Your task to perform on an android device: Go to Reddit.com Image 0: 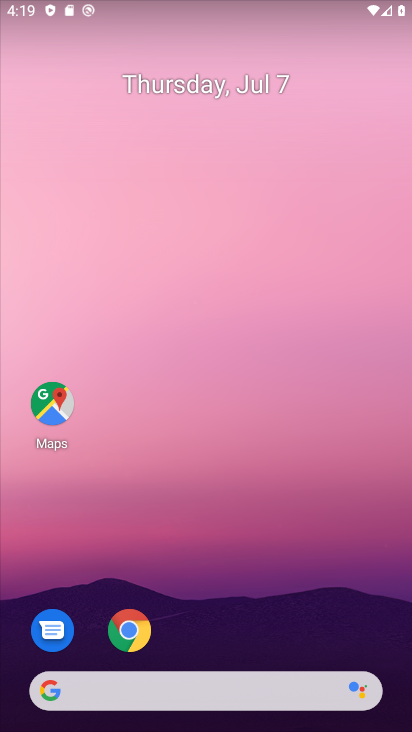
Step 0: drag from (300, 582) to (364, 91)
Your task to perform on an android device: Go to Reddit.com Image 1: 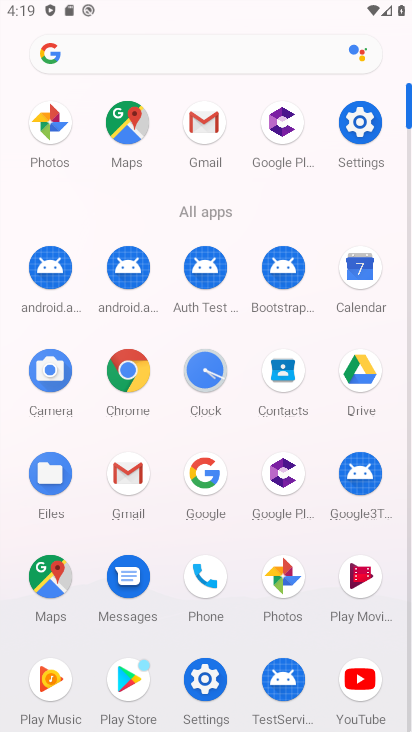
Step 1: click (148, 375)
Your task to perform on an android device: Go to Reddit.com Image 2: 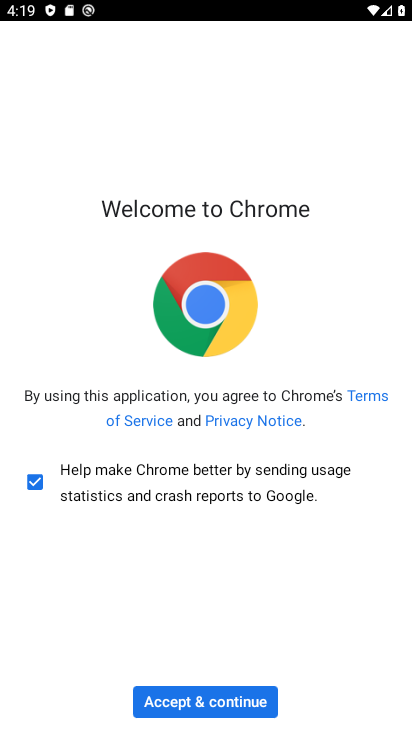
Step 2: click (198, 699)
Your task to perform on an android device: Go to Reddit.com Image 3: 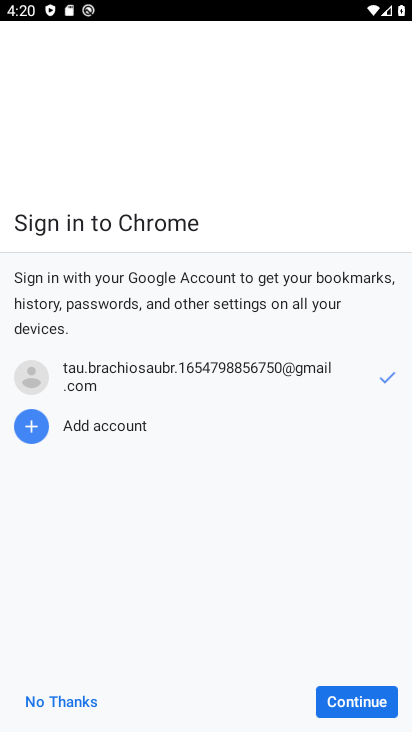
Step 3: click (342, 689)
Your task to perform on an android device: Go to Reddit.com Image 4: 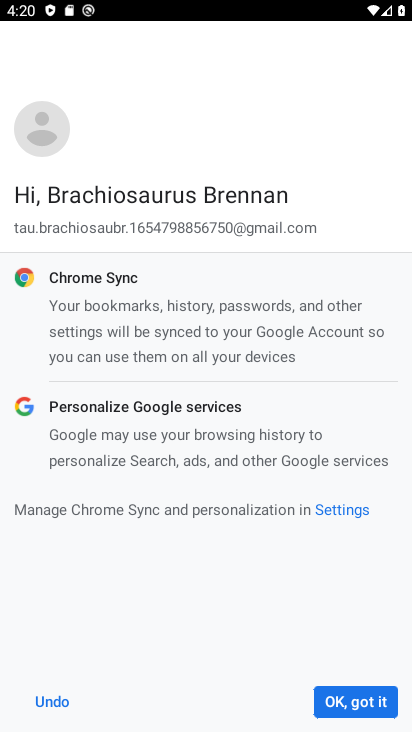
Step 4: click (347, 709)
Your task to perform on an android device: Go to Reddit.com Image 5: 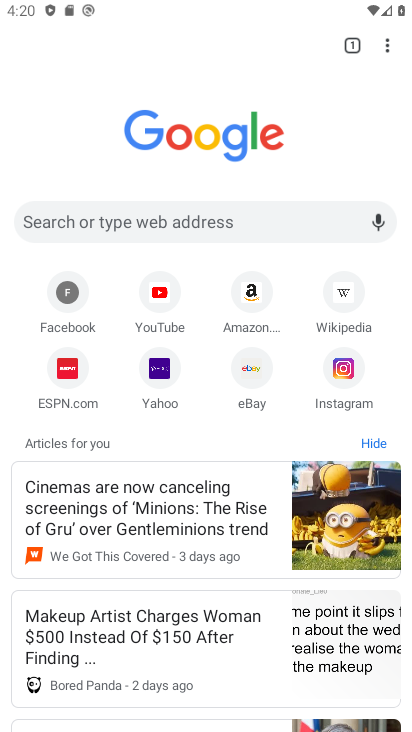
Step 5: click (222, 221)
Your task to perform on an android device: Go to Reddit.com Image 6: 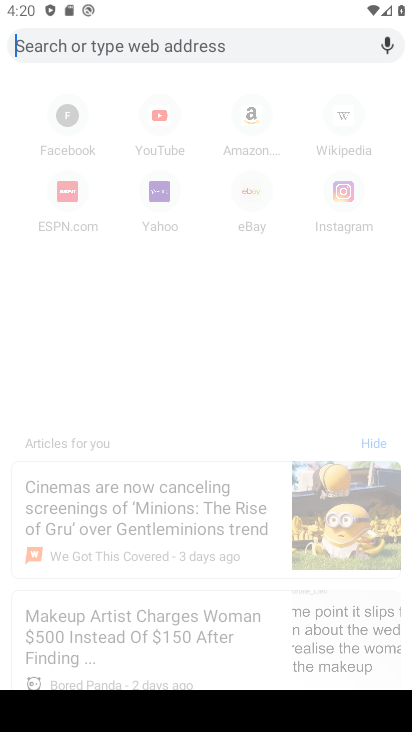
Step 6: type "reddit.com"
Your task to perform on an android device: Go to Reddit.com Image 7: 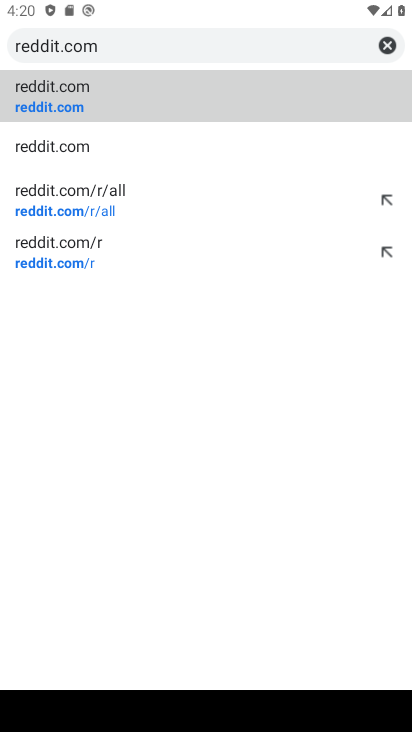
Step 7: click (312, 91)
Your task to perform on an android device: Go to Reddit.com Image 8: 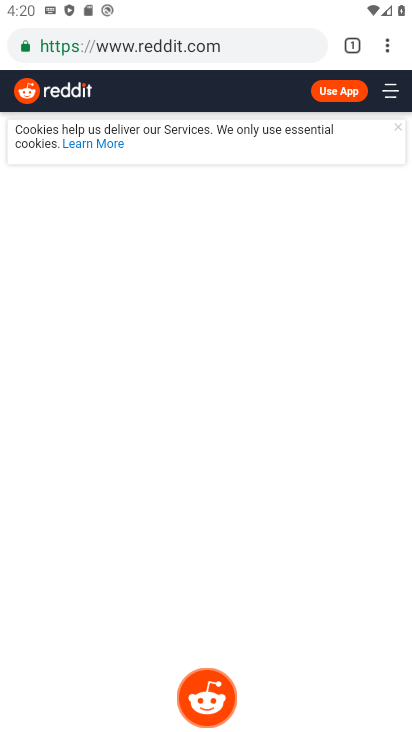
Step 8: task complete